Your task to perform on an android device: change the upload size in google photos Image 0: 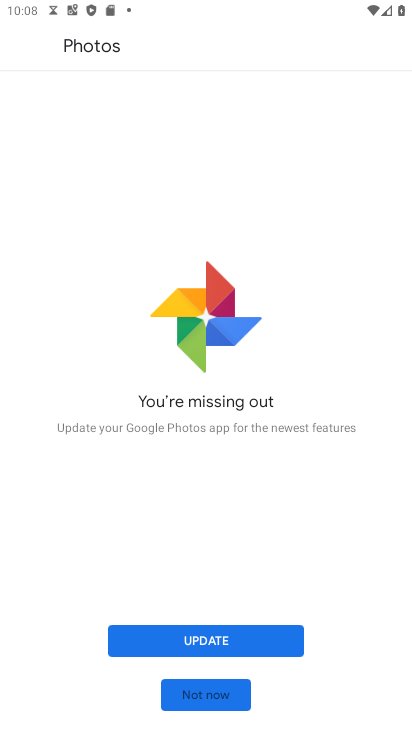
Step 0: click (268, 639)
Your task to perform on an android device: change the upload size in google photos Image 1: 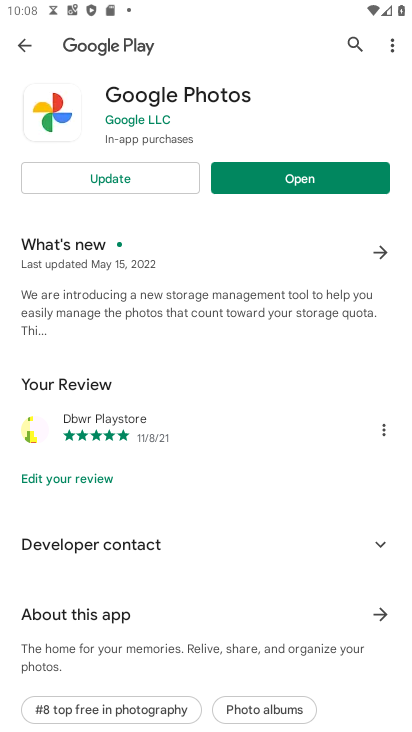
Step 1: click (132, 184)
Your task to perform on an android device: change the upload size in google photos Image 2: 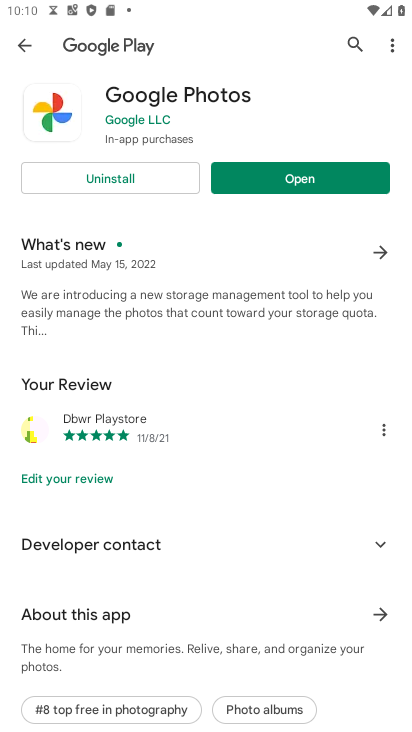
Step 2: click (302, 170)
Your task to perform on an android device: change the upload size in google photos Image 3: 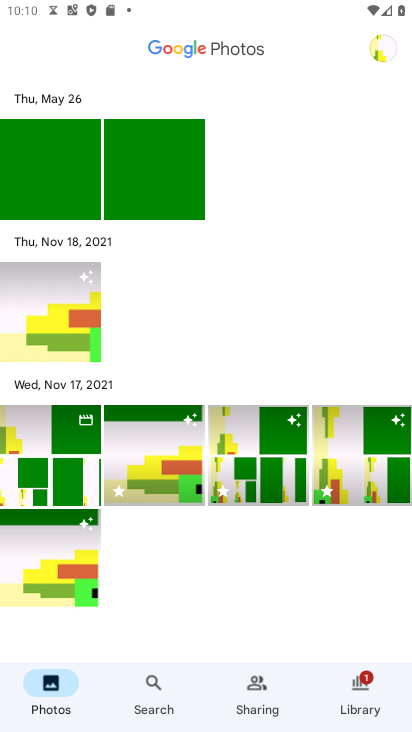
Step 3: click (390, 41)
Your task to perform on an android device: change the upload size in google photos Image 4: 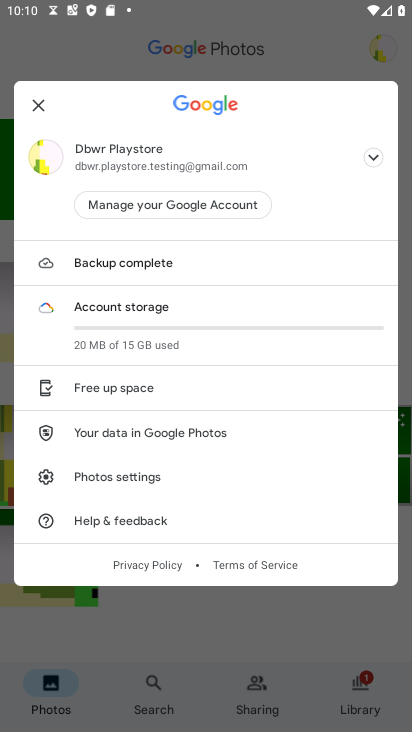
Step 4: click (154, 479)
Your task to perform on an android device: change the upload size in google photos Image 5: 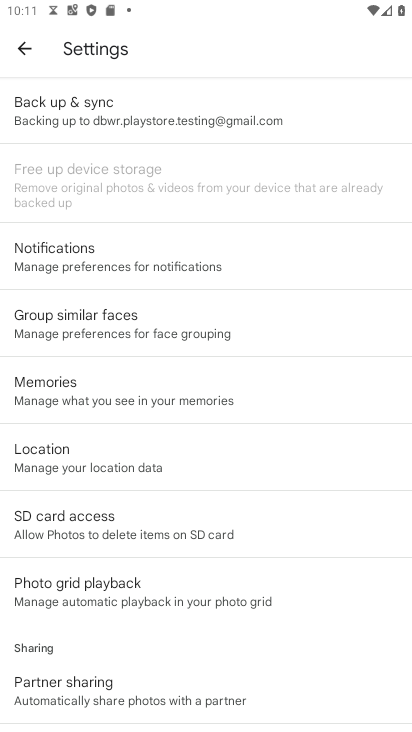
Step 5: click (162, 117)
Your task to perform on an android device: change the upload size in google photos Image 6: 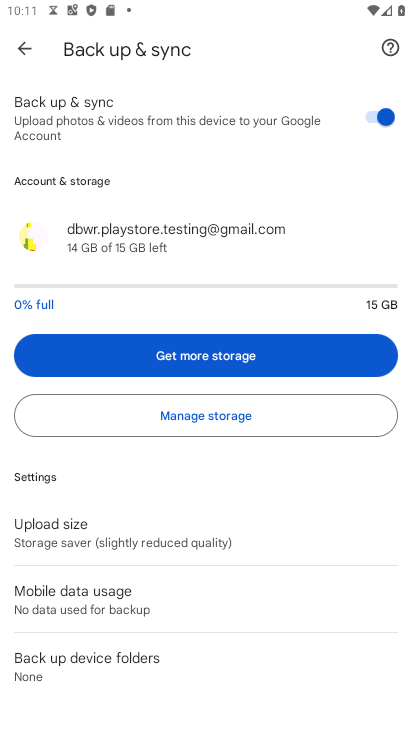
Step 6: click (108, 521)
Your task to perform on an android device: change the upload size in google photos Image 7: 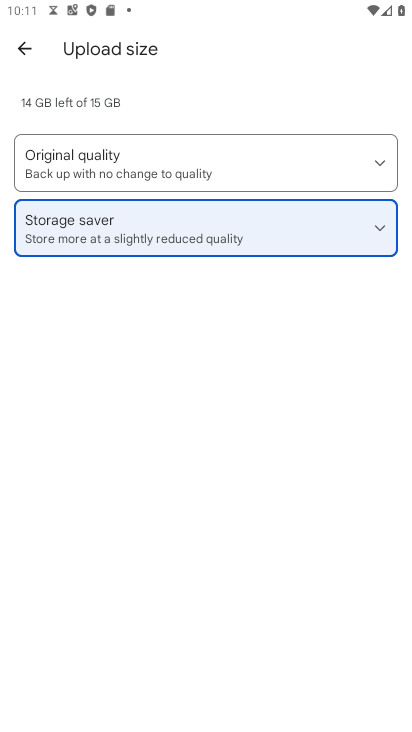
Step 7: click (167, 157)
Your task to perform on an android device: change the upload size in google photos Image 8: 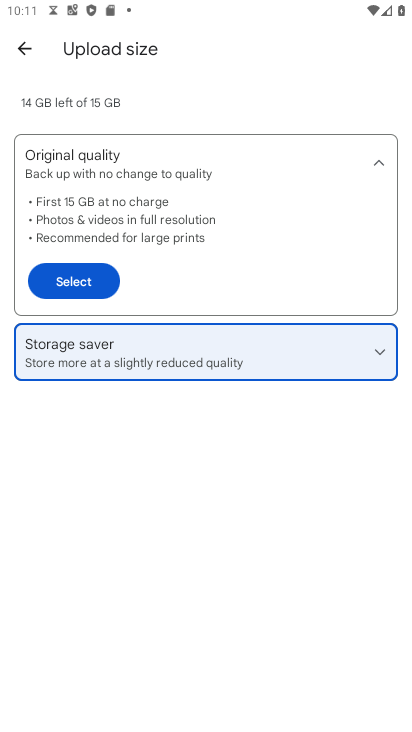
Step 8: click (54, 278)
Your task to perform on an android device: change the upload size in google photos Image 9: 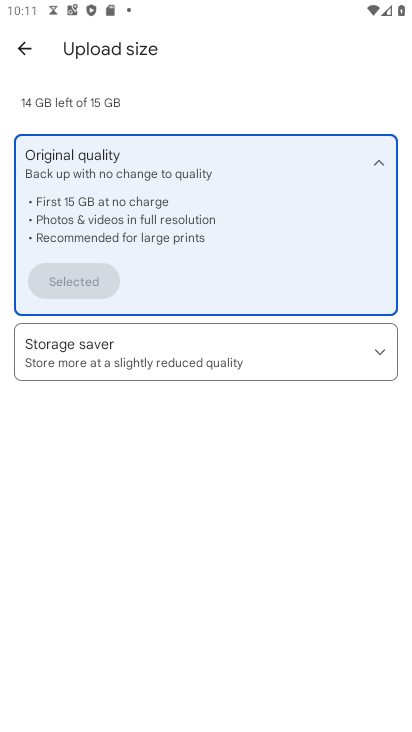
Step 9: task complete